Your task to perform on an android device: refresh tabs in the chrome app Image 0: 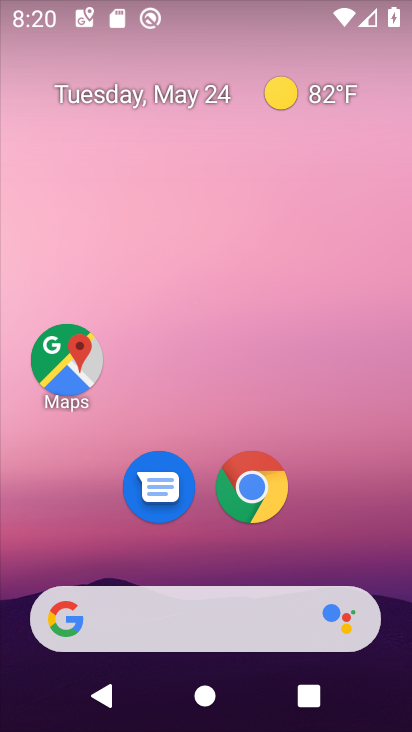
Step 0: drag from (353, 196) to (359, 128)
Your task to perform on an android device: refresh tabs in the chrome app Image 1: 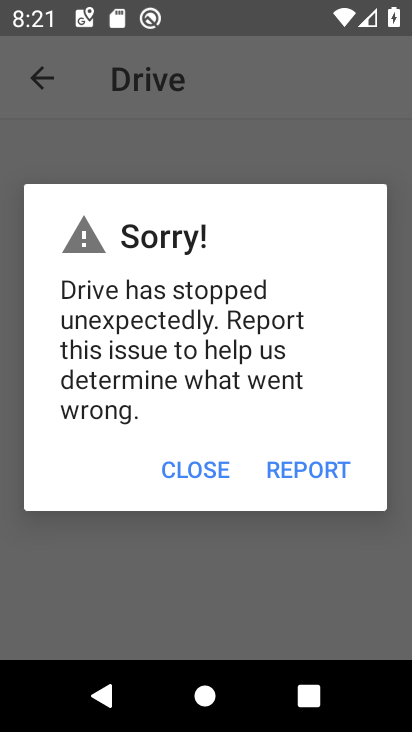
Step 1: press home button
Your task to perform on an android device: refresh tabs in the chrome app Image 2: 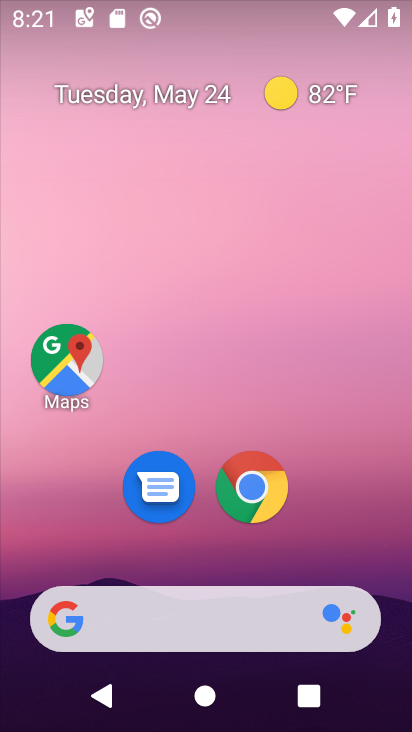
Step 2: drag from (368, 529) to (328, 109)
Your task to perform on an android device: refresh tabs in the chrome app Image 3: 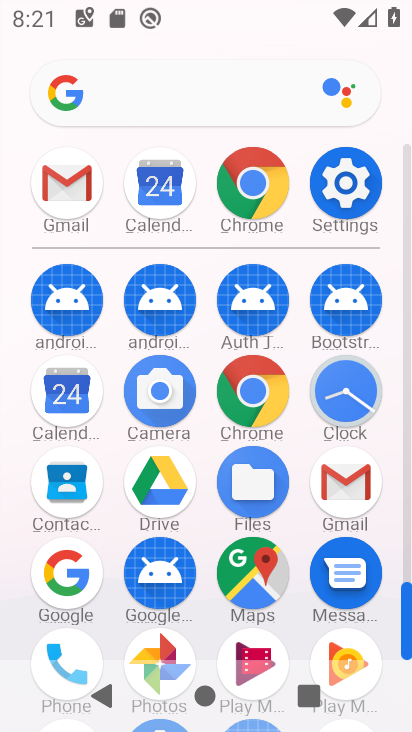
Step 3: click (271, 402)
Your task to perform on an android device: refresh tabs in the chrome app Image 4: 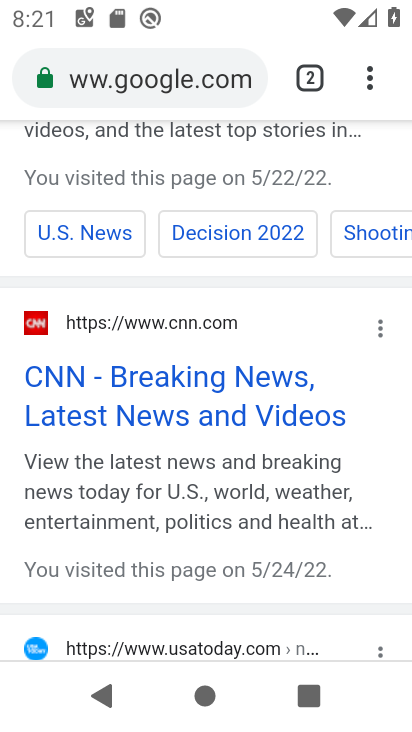
Step 4: task complete